Your task to perform on an android device: Open the map Image 0: 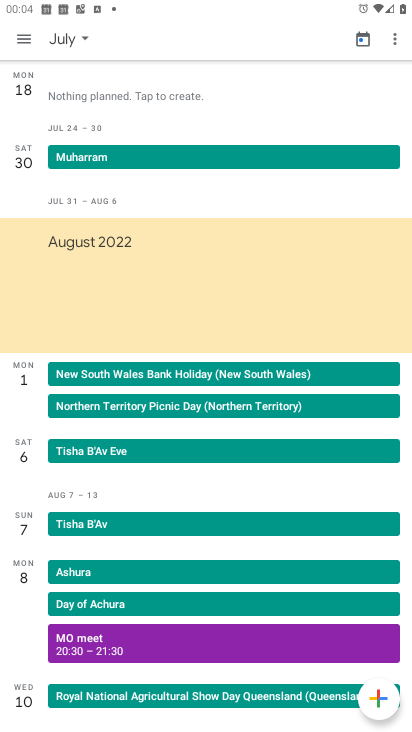
Step 0: press home button
Your task to perform on an android device: Open the map Image 1: 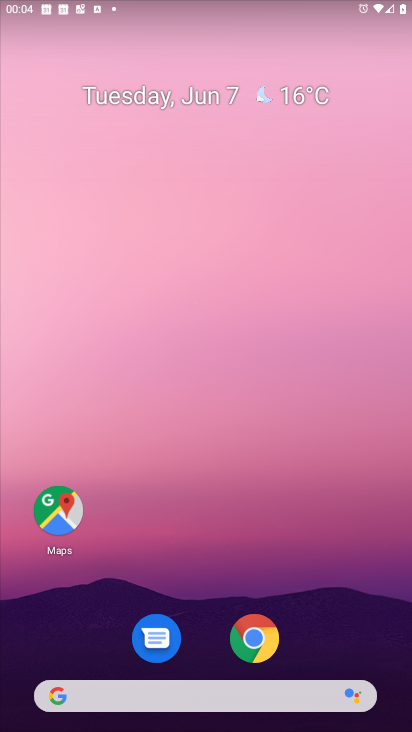
Step 1: drag from (193, 715) to (231, 233)
Your task to perform on an android device: Open the map Image 2: 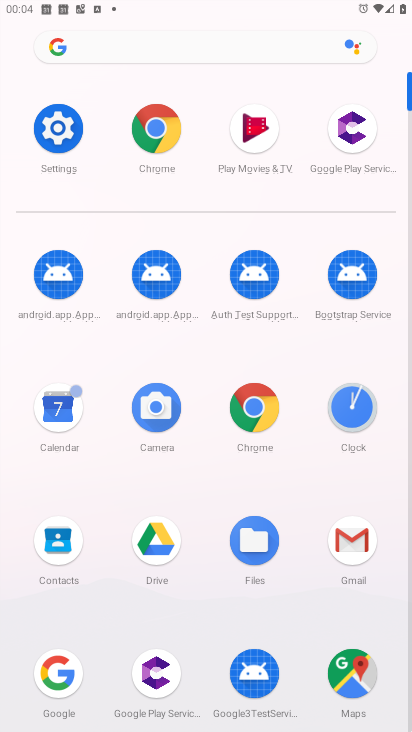
Step 2: click (354, 659)
Your task to perform on an android device: Open the map Image 3: 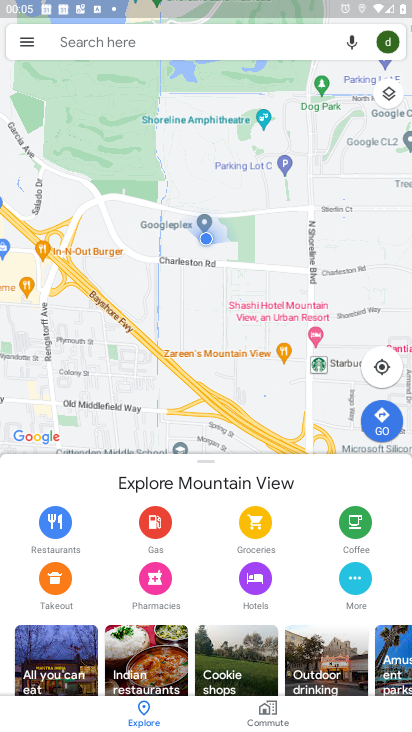
Step 3: task complete